Your task to perform on an android device: Search for vegetarian restaurants on Maps Image 0: 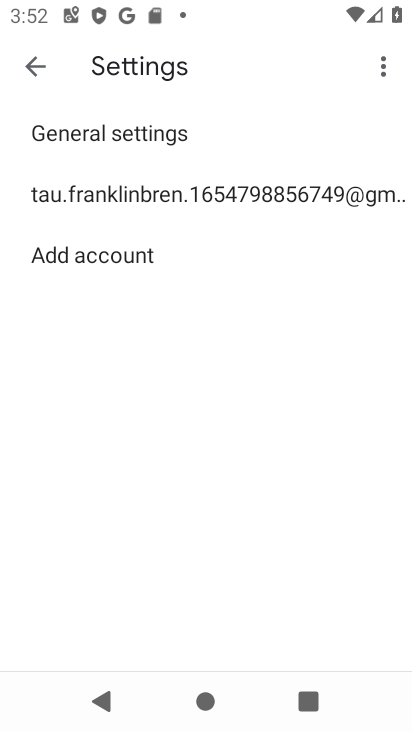
Step 0: press home button
Your task to perform on an android device: Search for vegetarian restaurants on Maps Image 1: 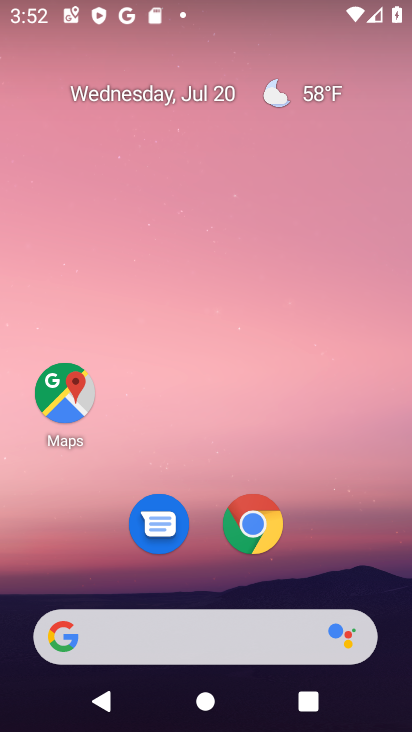
Step 1: click (54, 407)
Your task to perform on an android device: Search for vegetarian restaurants on Maps Image 2: 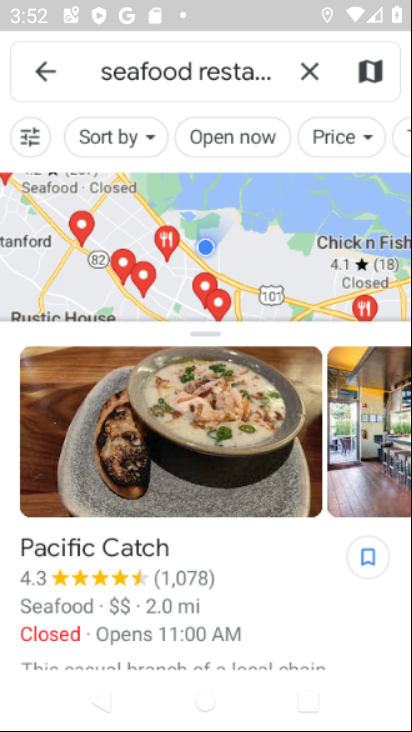
Step 2: click (312, 64)
Your task to perform on an android device: Search for vegetarian restaurants on Maps Image 3: 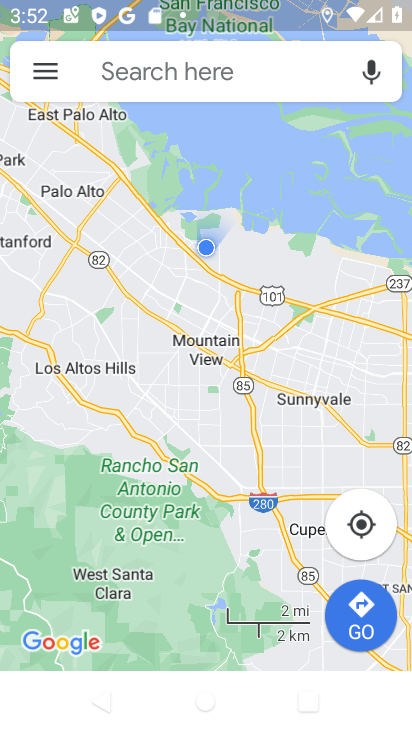
Step 3: click (177, 69)
Your task to perform on an android device: Search for vegetarian restaurants on Maps Image 4: 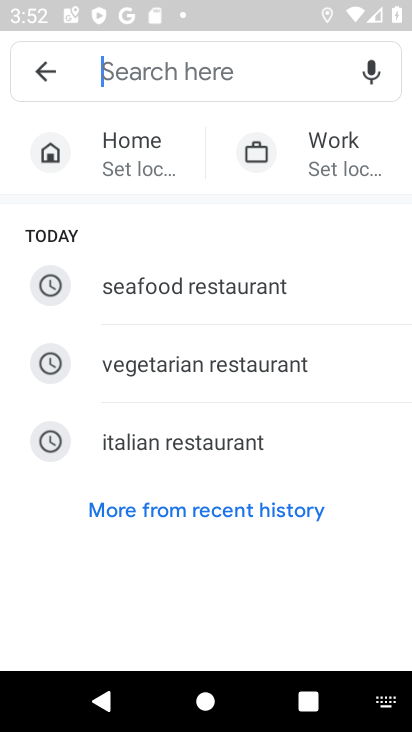
Step 4: click (207, 361)
Your task to perform on an android device: Search for vegetarian restaurants on Maps Image 5: 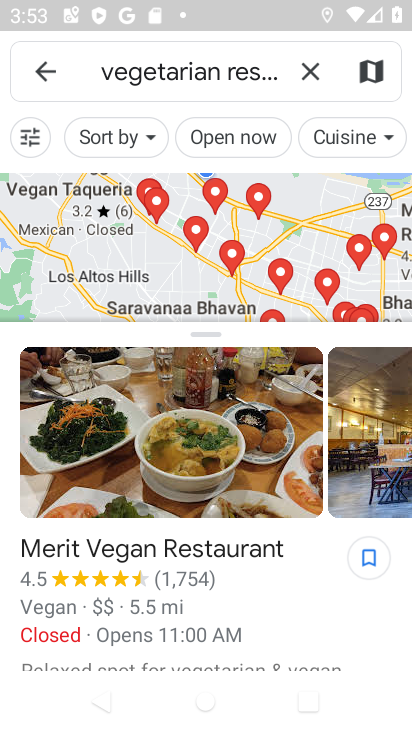
Step 5: task complete